Your task to perform on an android device: turn off translation in the chrome app Image 0: 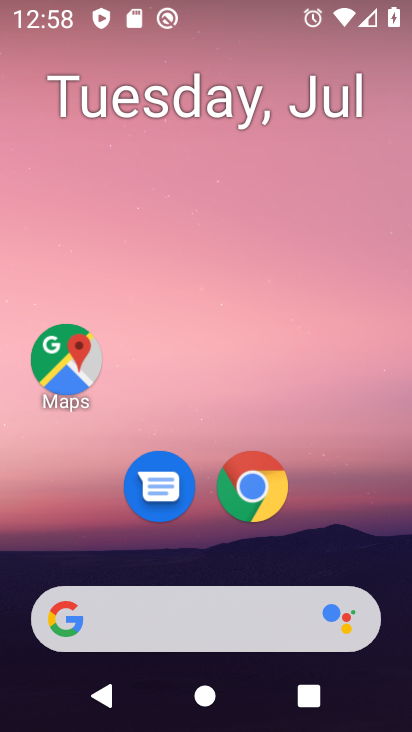
Step 0: drag from (378, 531) to (367, 126)
Your task to perform on an android device: turn off translation in the chrome app Image 1: 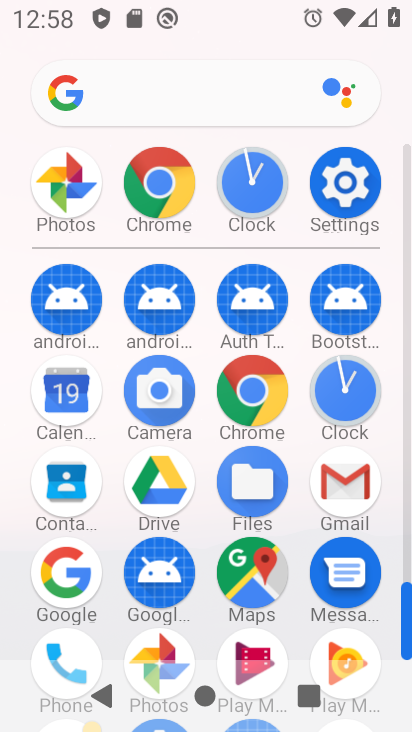
Step 1: click (263, 394)
Your task to perform on an android device: turn off translation in the chrome app Image 2: 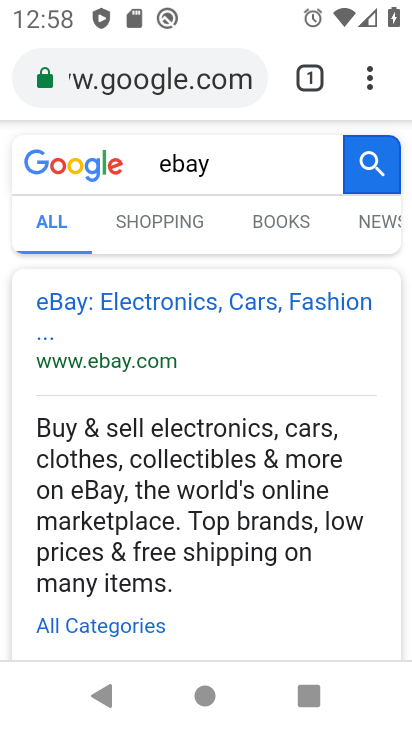
Step 2: click (372, 79)
Your task to perform on an android device: turn off translation in the chrome app Image 3: 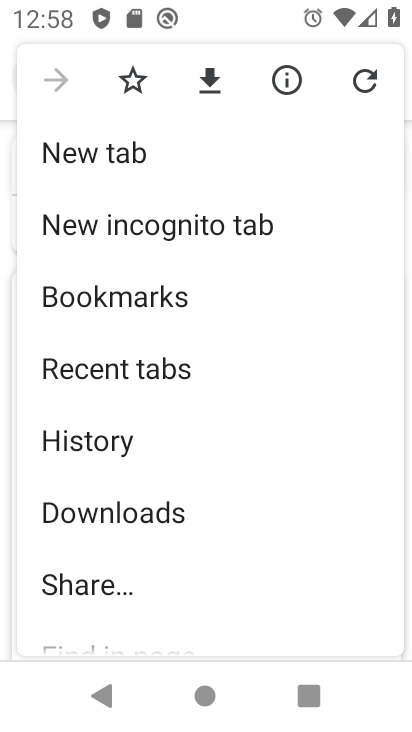
Step 3: drag from (302, 516) to (308, 440)
Your task to perform on an android device: turn off translation in the chrome app Image 4: 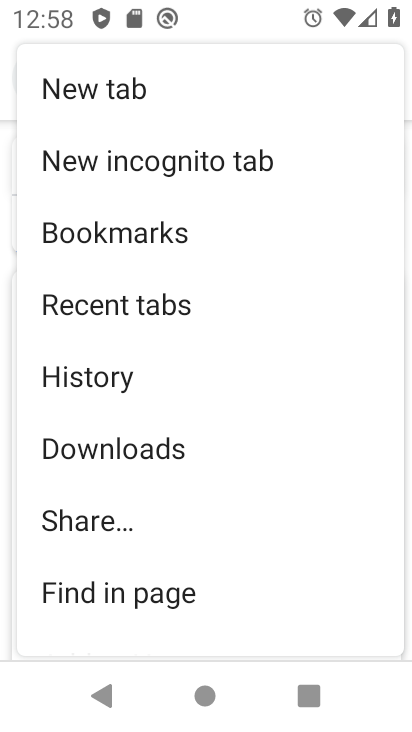
Step 4: drag from (299, 540) to (299, 402)
Your task to perform on an android device: turn off translation in the chrome app Image 5: 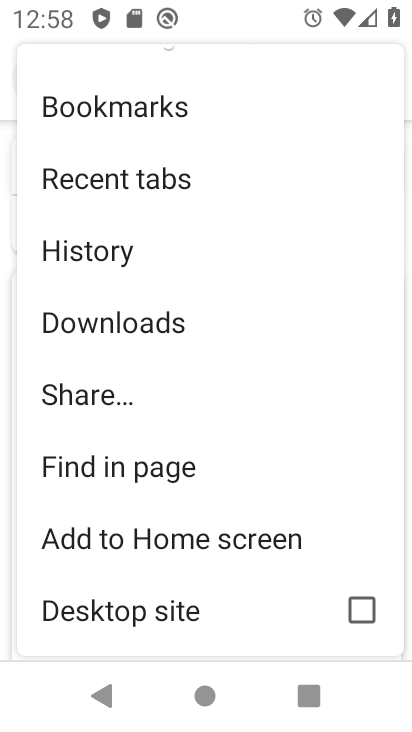
Step 5: drag from (281, 579) to (283, 404)
Your task to perform on an android device: turn off translation in the chrome app Image 6: 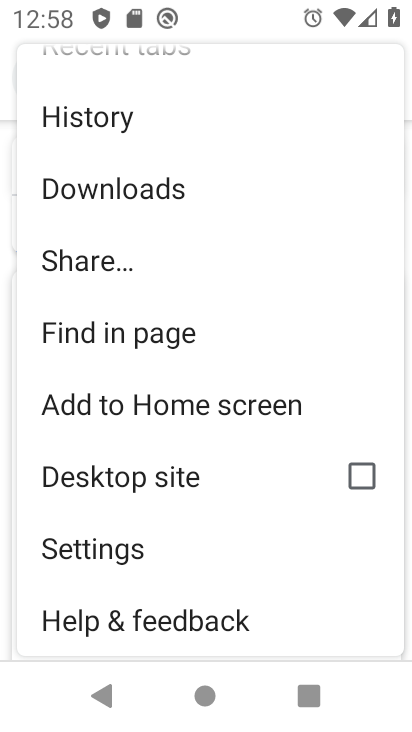
Step 6: drag from (268, 513) to (265, 385)
Your task to perform on an android device: turn off translation in the chrome app Image 7: 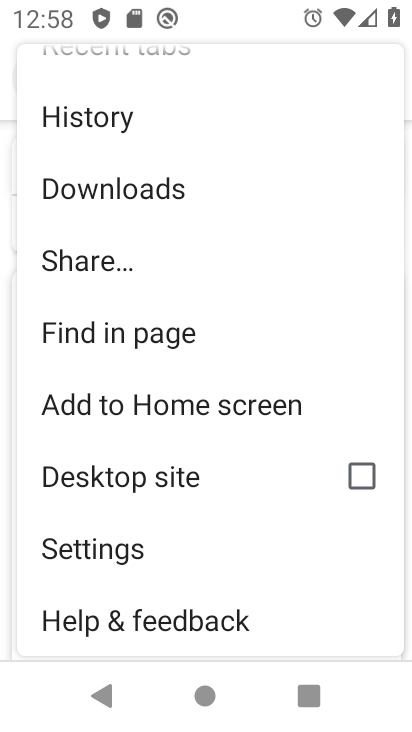
Step 7: click (214, 564)
Your task to perform on an android device: turn off translation in the chrome app Image 8: 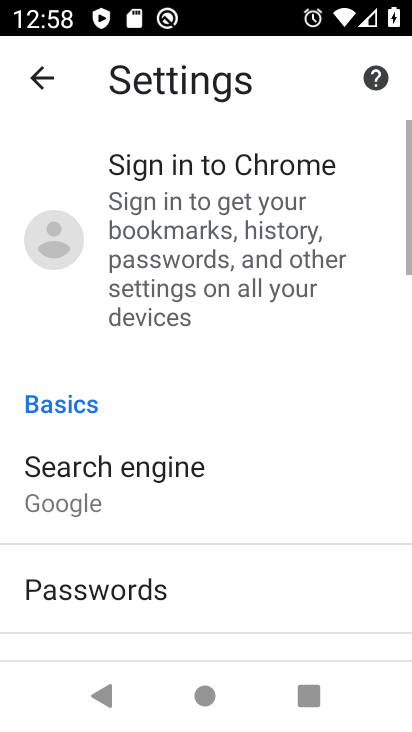
Step 8: drag from (277, 533) to (279, 423)
Your task to perform on an android device: turn off translation in the chrome app Image 9: 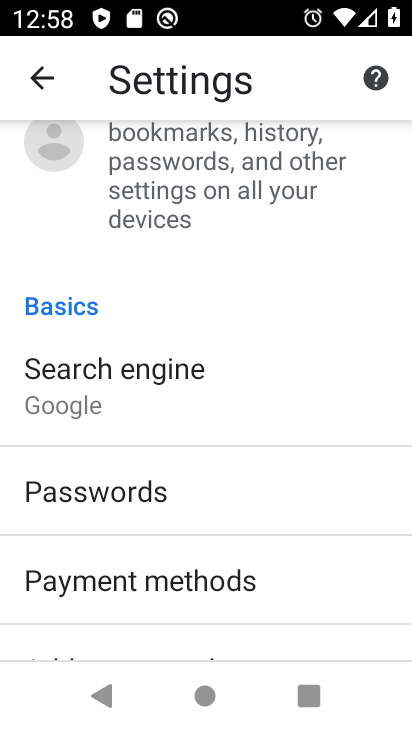
Step 9: drag from (296, 558) to (312, 436)
Your task to perform on an android device: turn off translation in the chrome app Image 10: 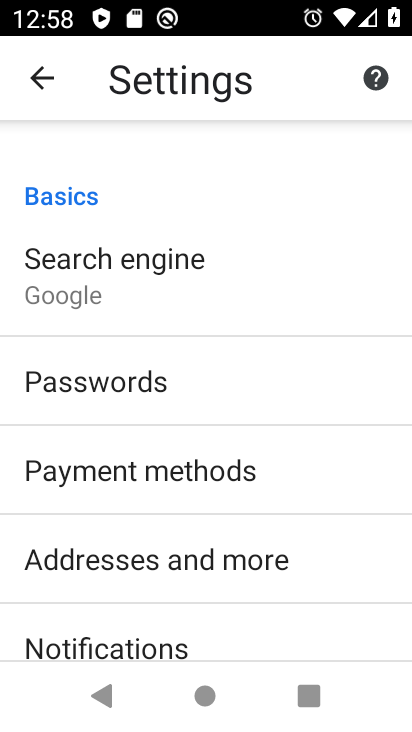
Step 10: drag from (321, 586) to (322, 461)
Your task to perform on an android device: turn off translation in the chrome app Image 11: 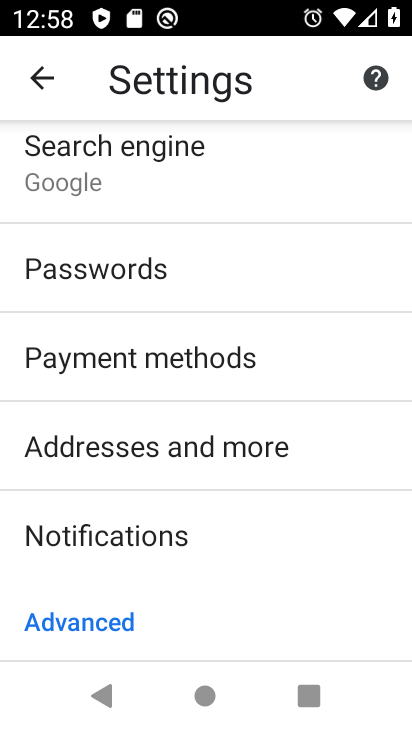
Step 11: drag from (300, 577) to (306, 395)
Your task to perform on an android device: turn off translation in the chrome app Image 12: 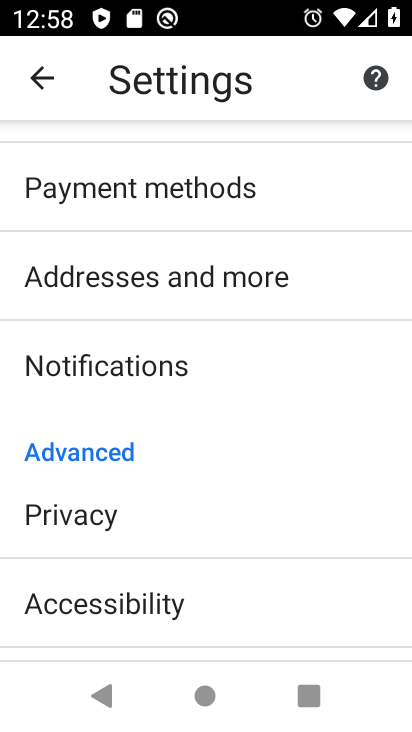
Step 12: drag from (305, 547) to (295, 429)
Your task to perform on an android device: turn off translation in the chrome app Image 13: 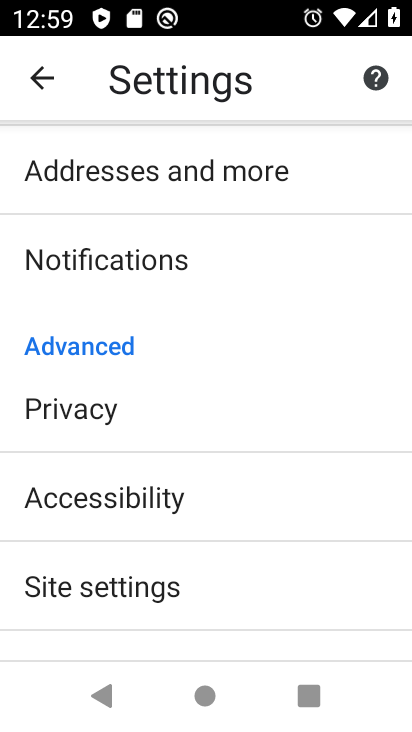
Step 13: drag from (291, 558) to (299, 386)
Your task to perform on an android device: turn off translation in the chrome app Image 14: 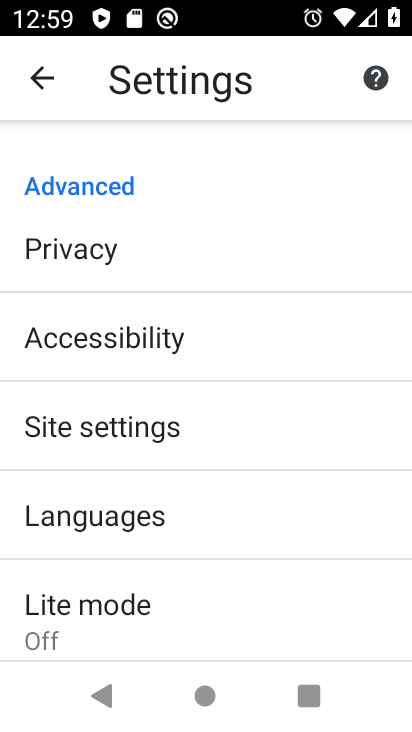
Step 14: click (279, 528)
Your task to perform on an android device: turn off translation in the chrome app Image 15: 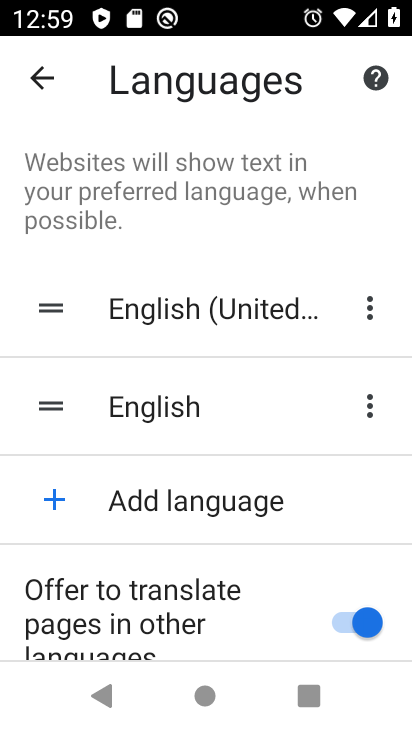
Step 15: click (359, 617)
Your task to perform on an android device: turn off translation in the chrome app Image 16: 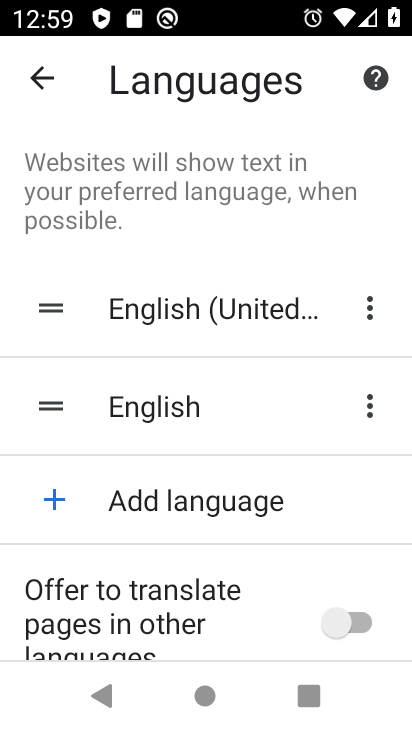
Step 16: task complete